Your task to perform on an android device: Check the news Image 0: 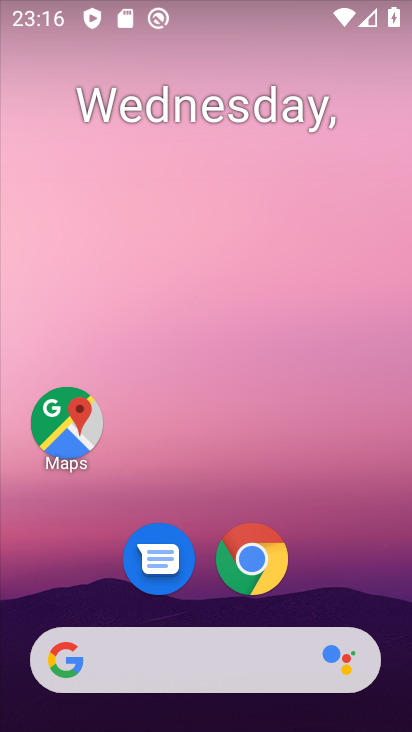
Step 0: click (258, 555)
Your task to perform on an android device: Check the news Image 1: 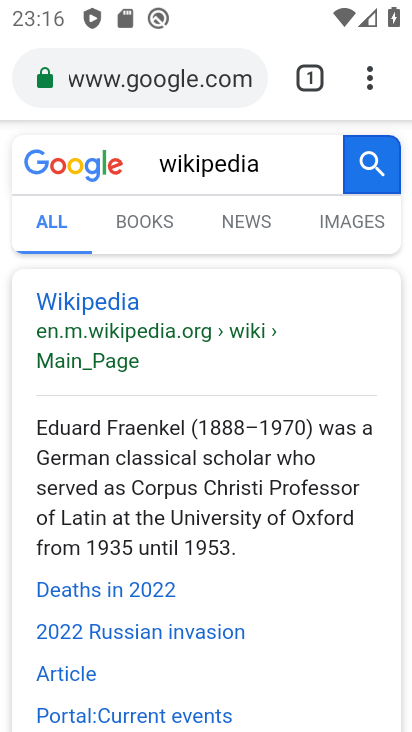
Step 1: click (147, 84)
Your task to perform on an android device: Check the news Image 2: 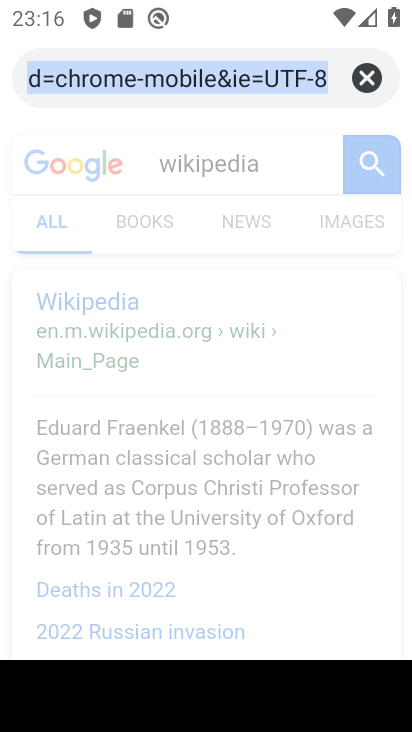
Step 2: type "news"
Your task to perform on an android device: Check the news Image 3: 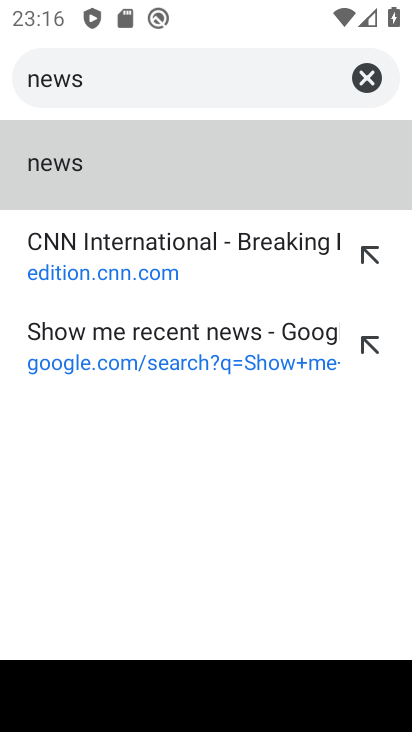
Step 3: click (140, 182)
Your task to perform on an android device: Check the news Image 4: 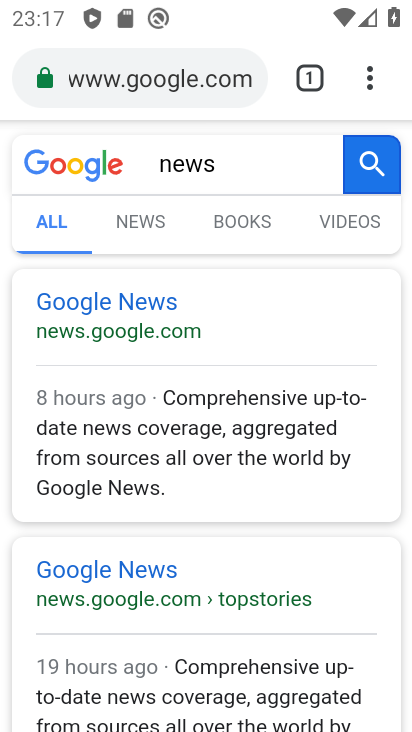
Step 4: task complete